Your task to perform on an android device: Open Reddit.com Image 0: 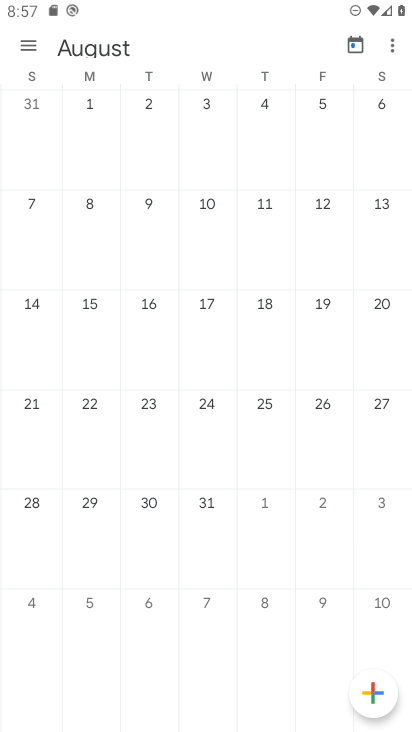
Step 0: press home button
Your task to perform on an android device: Open Reddit.com Image 1: 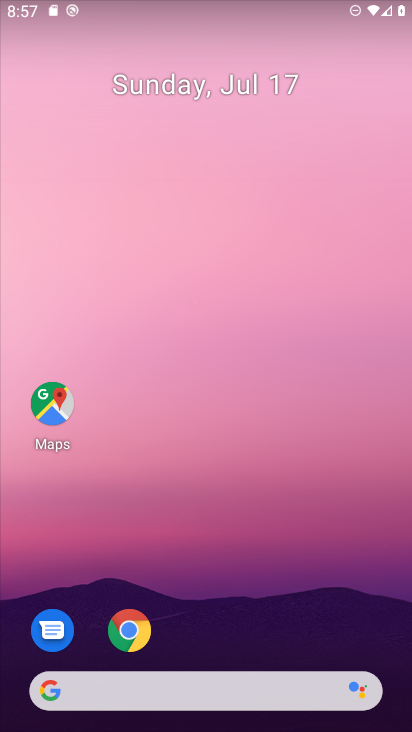
Step 1: click (123, 621)
Your task to perform on an android device: Open Reddit.com Image 2: 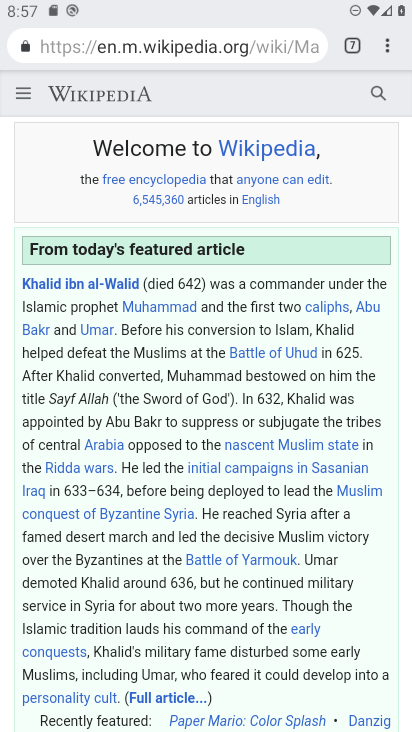
Step 2: click (393, 48)
Your task to perform on an android device: Open Reddit.com Image 3: 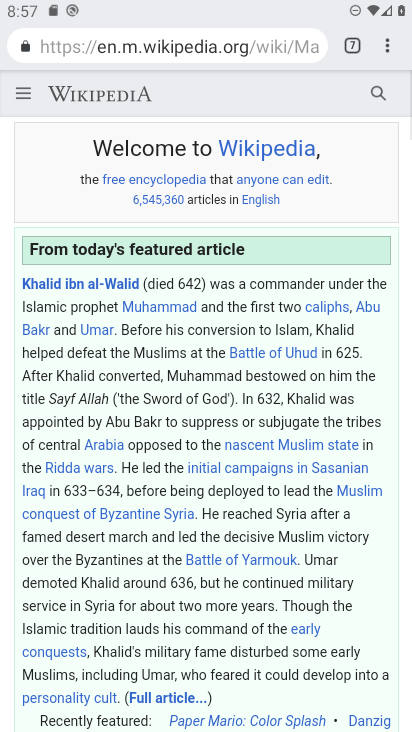
Step 3: click (391, 54)
Your task to perform on an android device: Open Reddit.com Image 4: 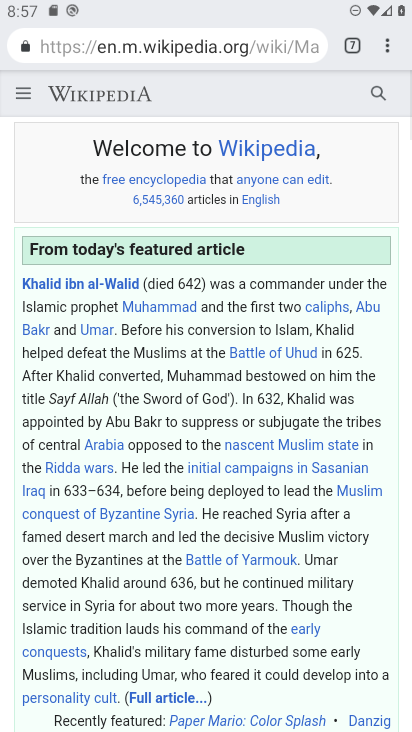
Step 4: click (391, 34)
Your task to perform on an android device: Open Reddit.com Image 5: 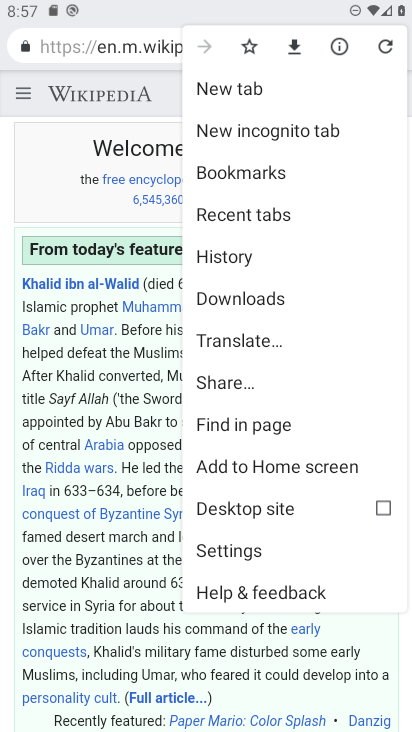
Step 5: click (247, 92)
Your task to perform on an android device: Open Reddit.com Image 6: 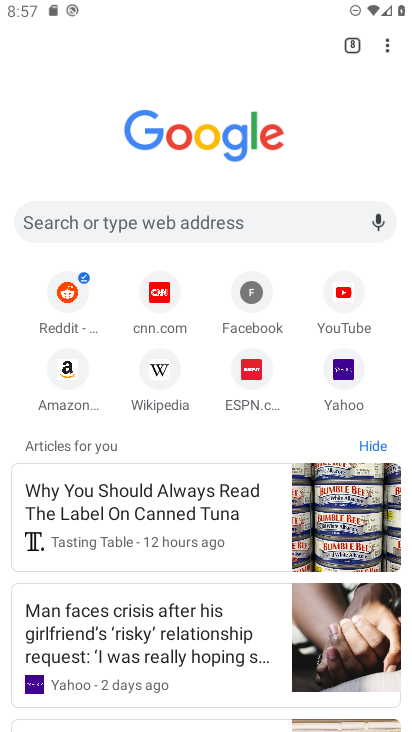
Step 6: click (223, 215)
Your task to perform on an android device: Open Reddit.com Image 7: 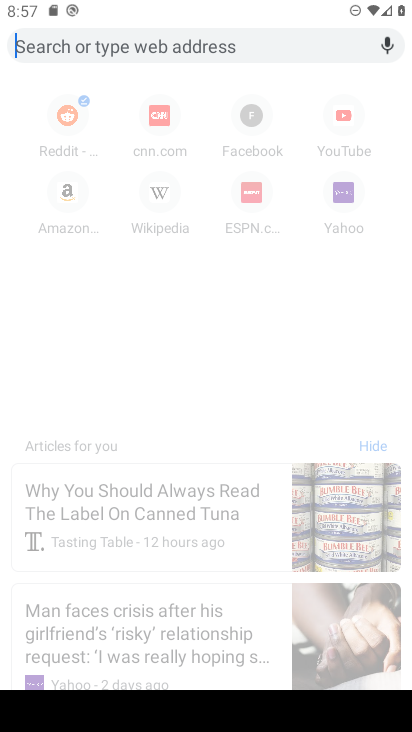
Step 7: type " Reddit.com "
Your task to perform on an android device: Open Reddit.com Image 8: 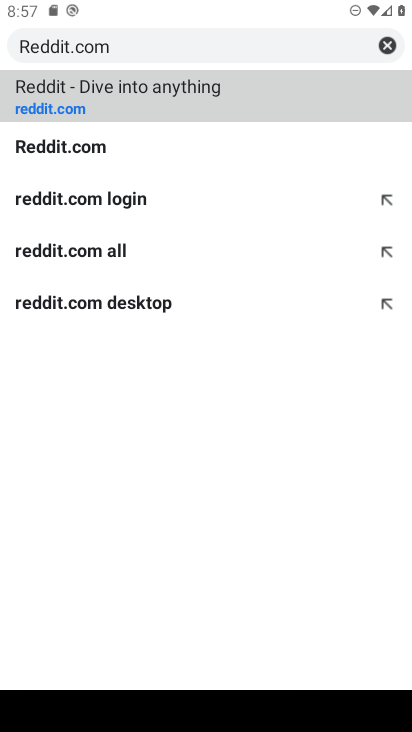
Step 8: click (136, 92)
Your task to perform on an android device: Open Reddit.com Image 9: 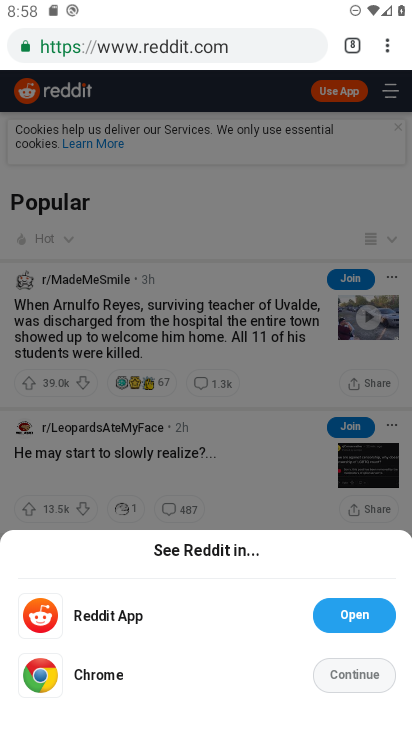
Step 9: task complete